Your task to perform on an android device: make emails show in primary in the gmail app Image 0: 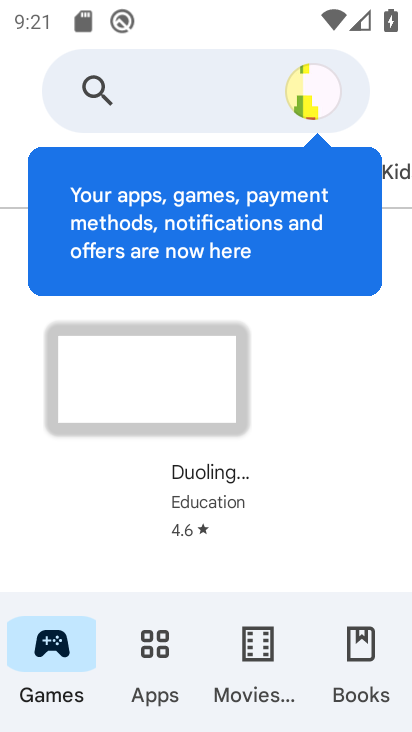
Step 0: press home button
Your task to perform on an android device: make emails show in primary in the gmail app Image 1: 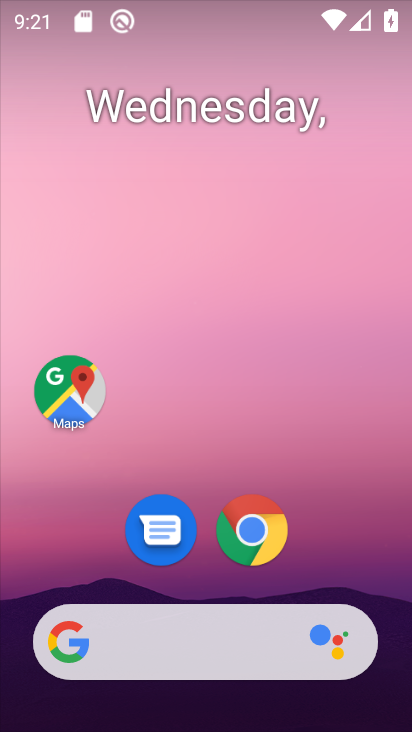
Step 1: drag from (42, 599) to (227, 106)
Your task to perform on an android device: make emails show in primary in the gmail app Image 2: 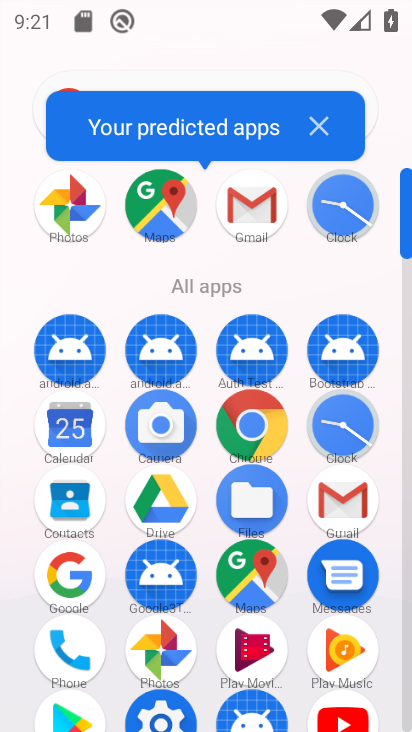
Step 2: click (326, 506)
Your task to perform on an android device: make emails show in primary in the gmail app Image 3: 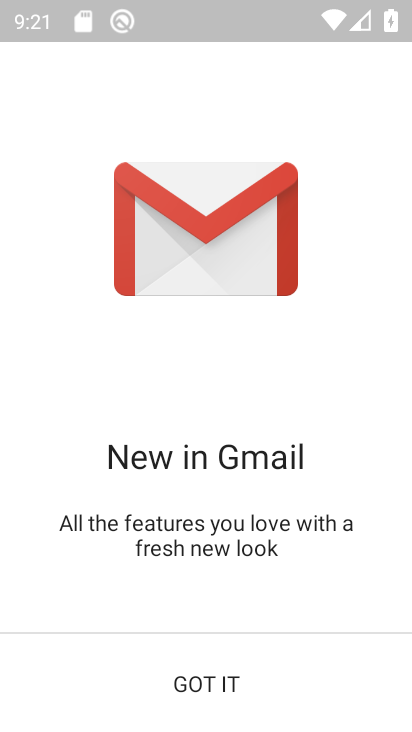
Step 3: click (182, 708)
Your task to perform on an android device: make emails show in primary in the gmail app Image 4: 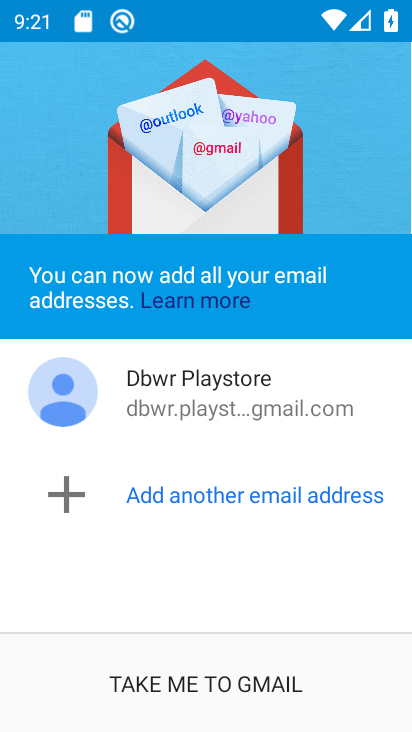
Step 4: click (192, 696)
Your task to perform on an android device: make emails show in primary in the gmail app Image 5: 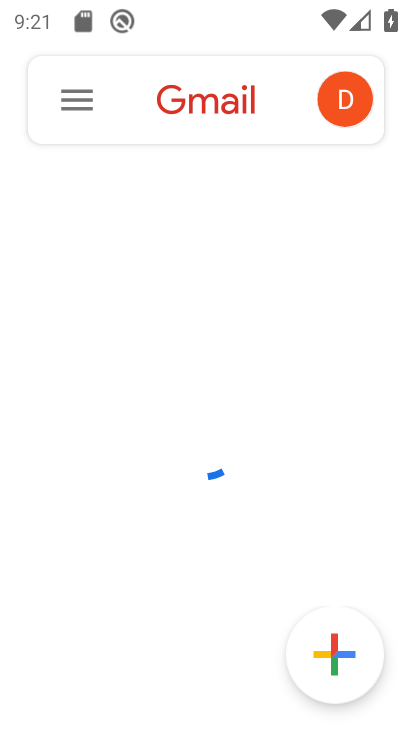
Step 5: click (67, 90)
Your task to perform on an android device: make emails show in primary in the gmail app Image 6: 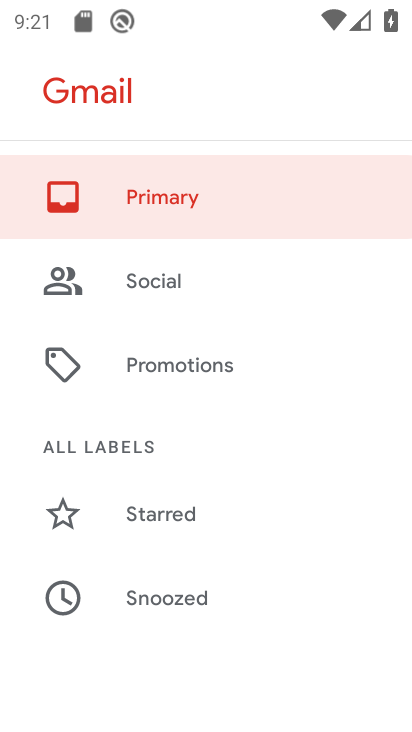
Step 6: click (249, 240)
Your task to perform on an android device: make emails show in primary in the gmail app Image 7: 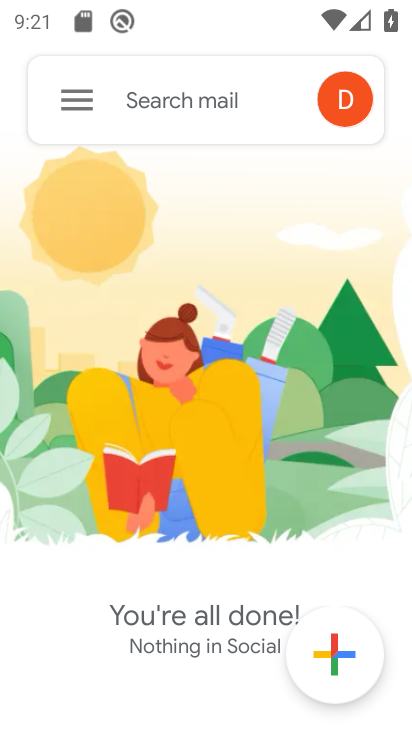
Step 7: task complete